Your task to perform on an android device: Go to settings Image 0: 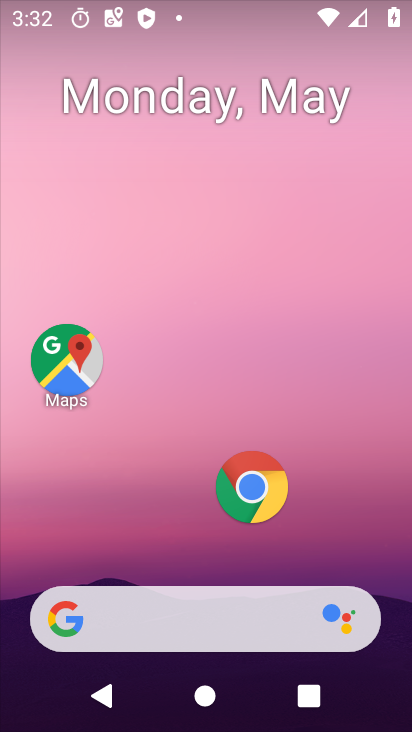
Step 0: drag from (134, 543) to (133, 82)
Your task to perform on an android device: Go to settings Image 1: 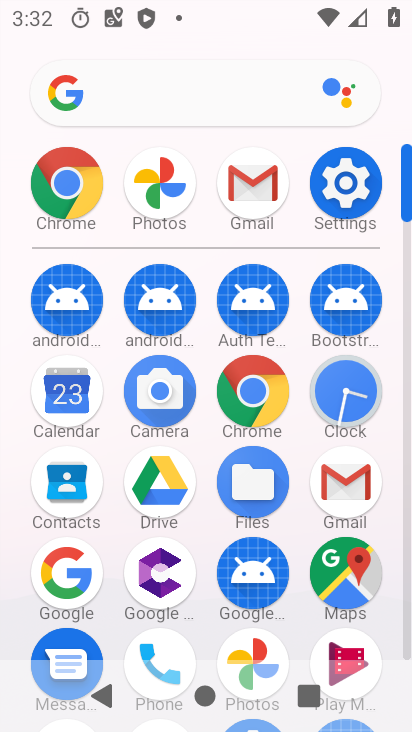
Step 1: click (370, 182)
Your task to perform on an android device: Go to settings Image 2: 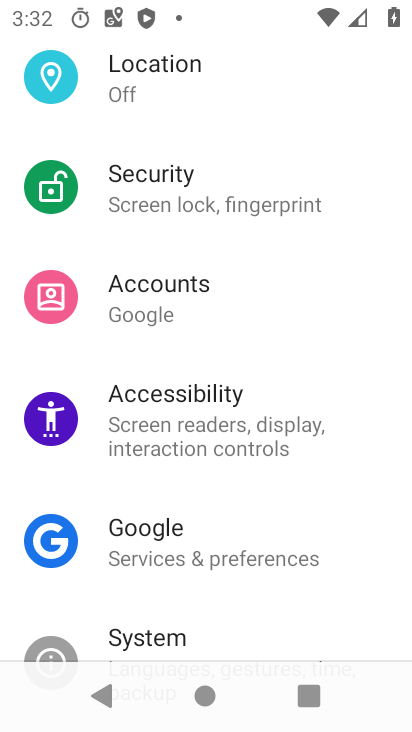
Step 2: task complete